Your task to perform on an android device: Go to internet settings Image 0: 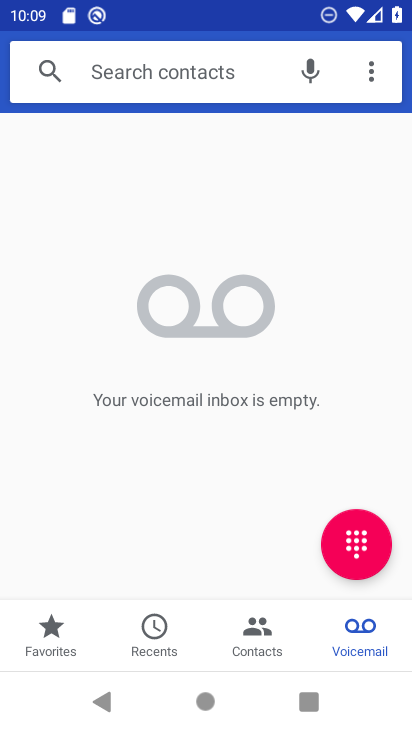
Step 0: press home button
Your task to perform on an android device: Go to internet settings Image 1: 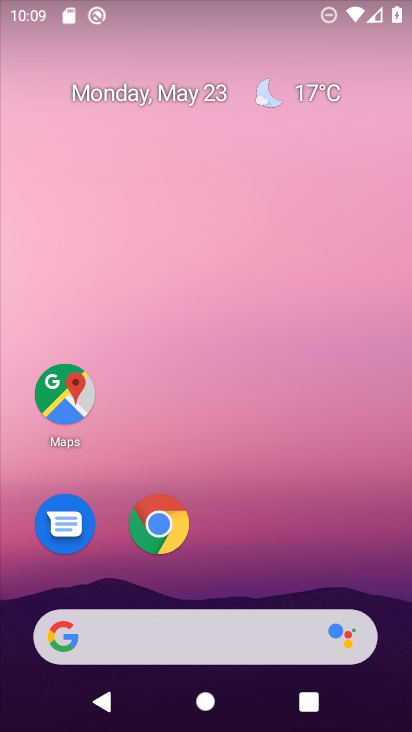
Step 1: drag from (216, 588) to (219, 179)
Your task to perform on an android device: Go to internet settings Image 2: 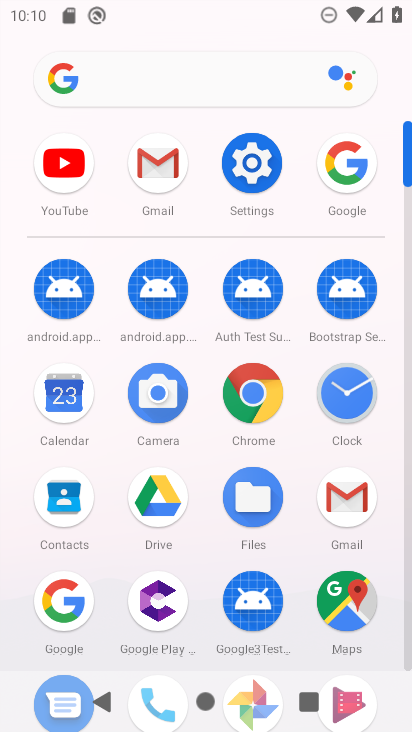
Step 2: click (221, 168)
Your task to perform on an android device: Go to internet settings Image 3: 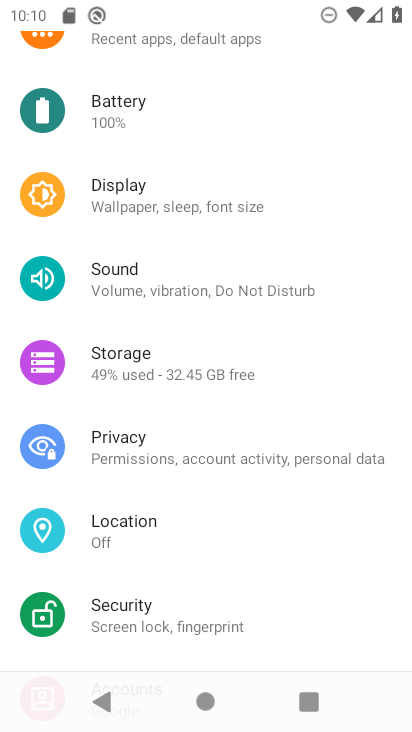
Step 3: drag from (176, 191) to (183, 544)
Your task to perform on an android device: Go to internet settings Image 4: 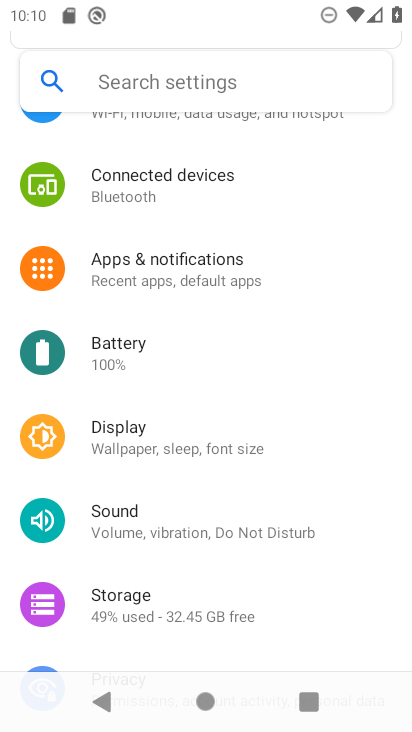
Step 4: drag from (180, 213) to (189, 585)
Your task to perform on an android device: Go to internet settings Image 5: 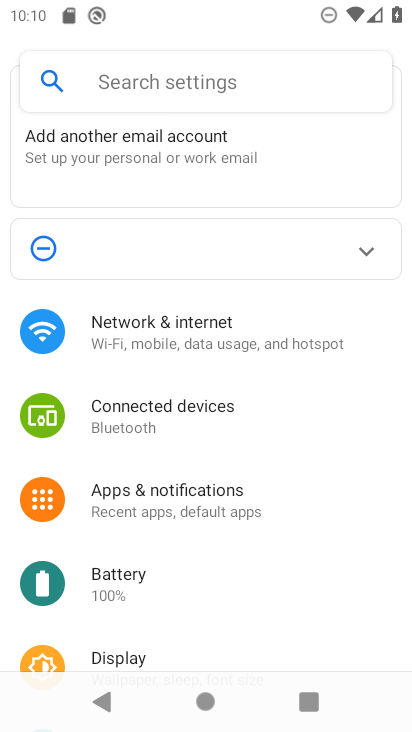
Step 5: click (157, 315)
Your task to perform on an android device: Go to internet settings Image 6: 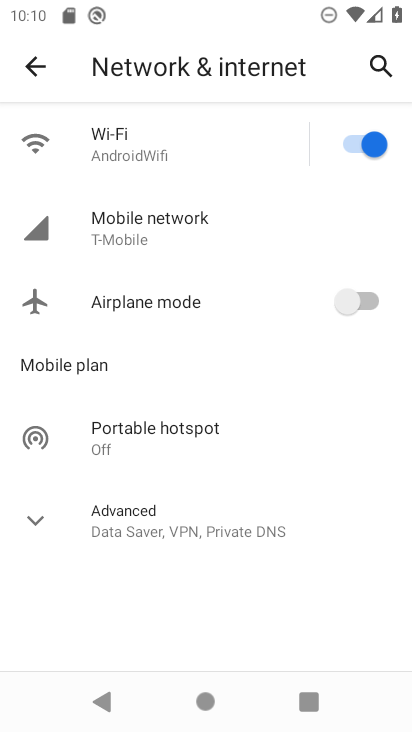
Step 6: click (179, 236)
Your task to perform on an android device: Go to internet settings Image 7: 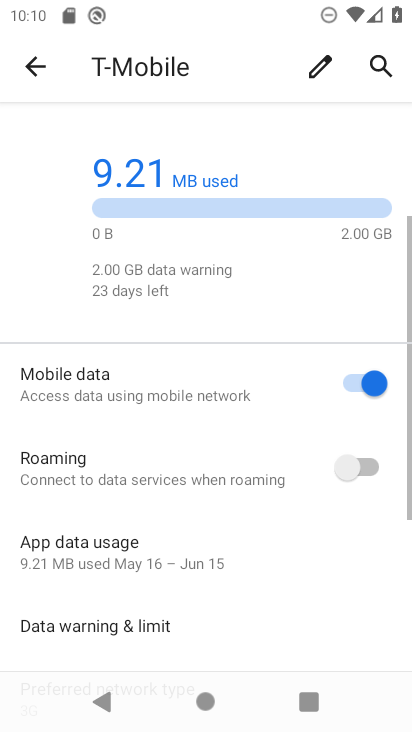
Step 7: task complete